Your task to perform on an android device: change the clock style Image 0: 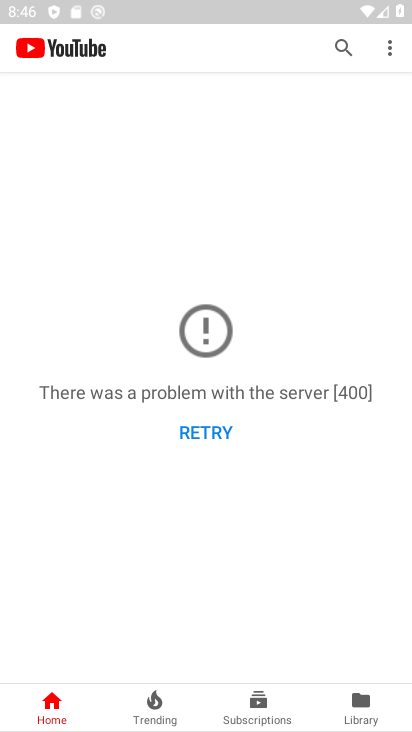
Step 0: press home button
Your task to perform on an android device: change the clock style Image 1: 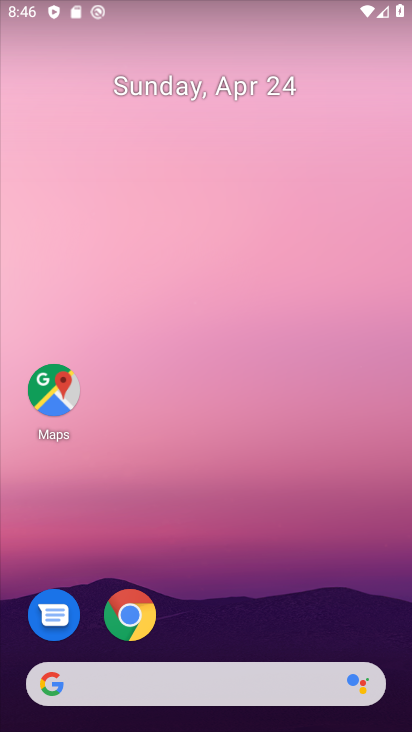
Step 1: drag from (213, 567) to (213, 86)
Your task to perform on an android device: change the clock style Image 2: 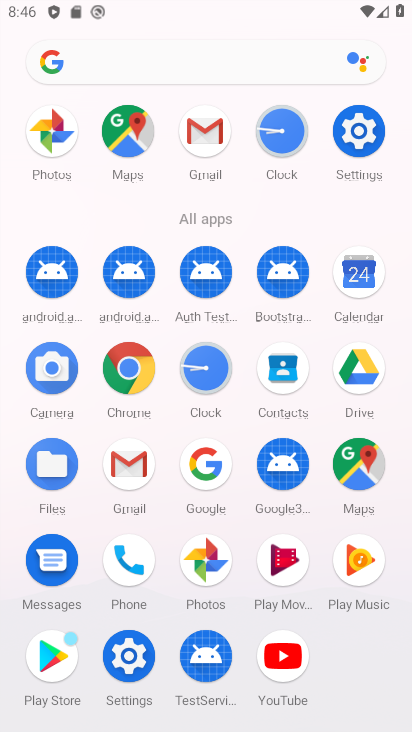
Step 2: click (206, 360)
Your task to perform on an android device: change the clock style Image 3: 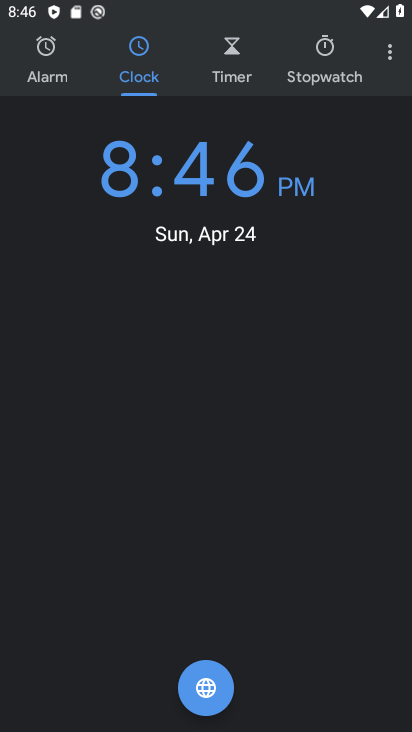
Step 3: click (373, 59)
Your task to perform on an android device: change the clock style Image 4: 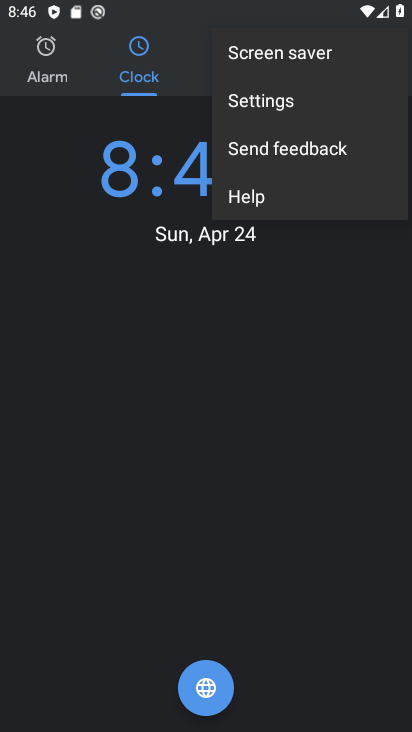
Step 4: click (269, 111)
Your task to perform on an android device: change the clock style Image 5: 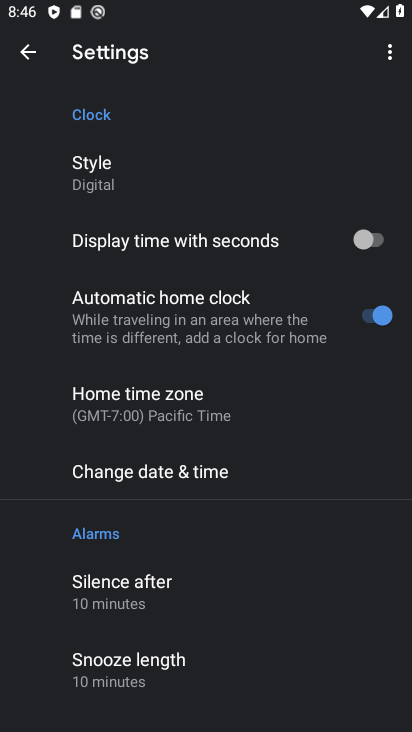
Step 5: click (129, 161)
Your task to perform on an android device: change the clock style Image 6: 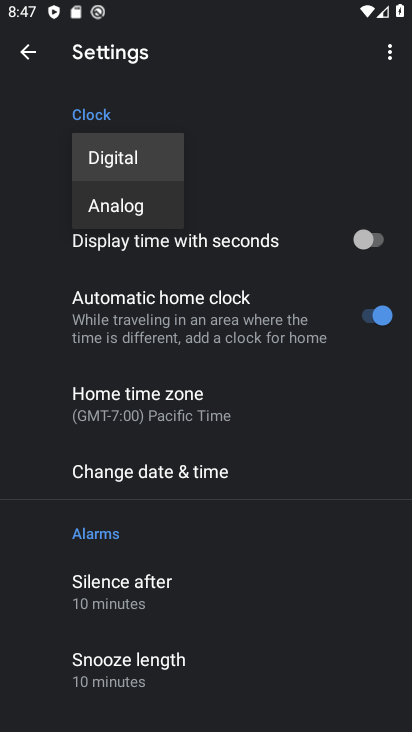
Step 6: click (125, 200)
Your task to perform on an android device: change the clock style Image 7: 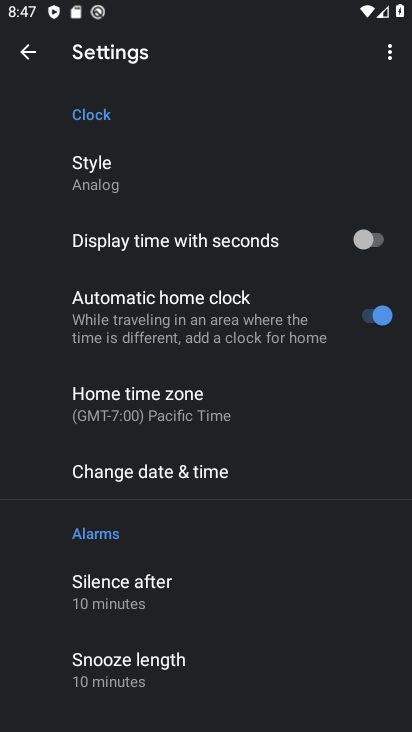
Step 7: task complete